Your task to perform on an android device: set the stopwatch Image 0: 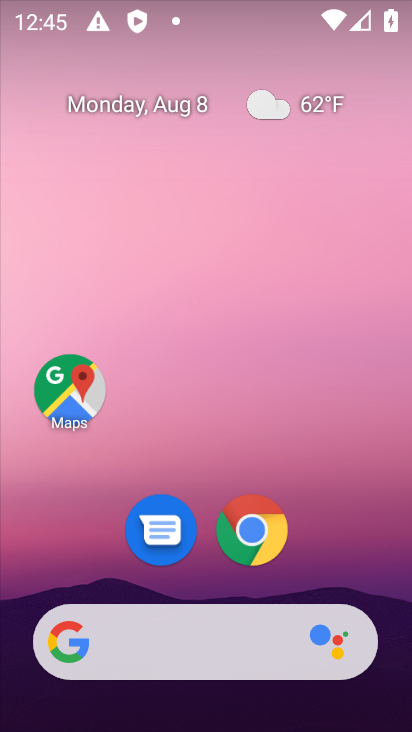
Step 0: drag from (222, 594) to (241, 130)
Your task to perform on an android device: set the stopwatch Image 1: 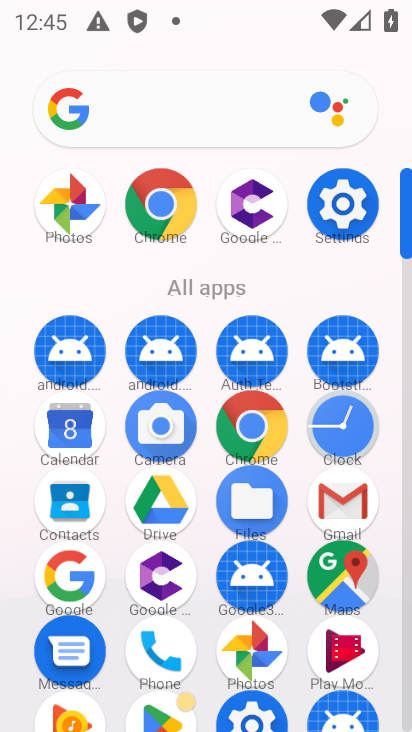
Step 1: click (327, 431)
Your task to perform on an android device: set the stopwatch Image 2: 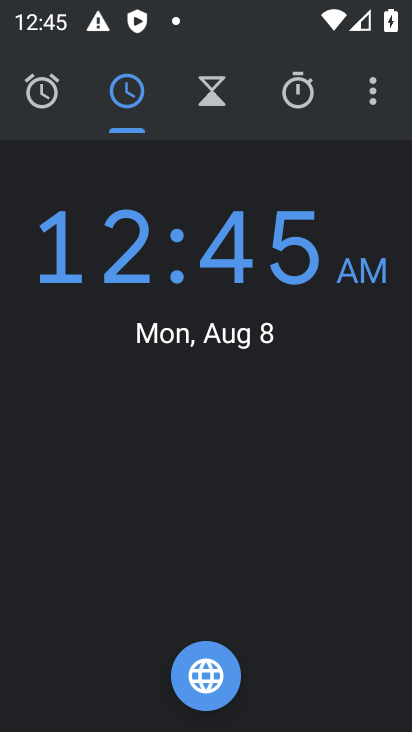
Step 2: click (298, 91)
Your task to perform on an android device: set the stopwatch Image 3: 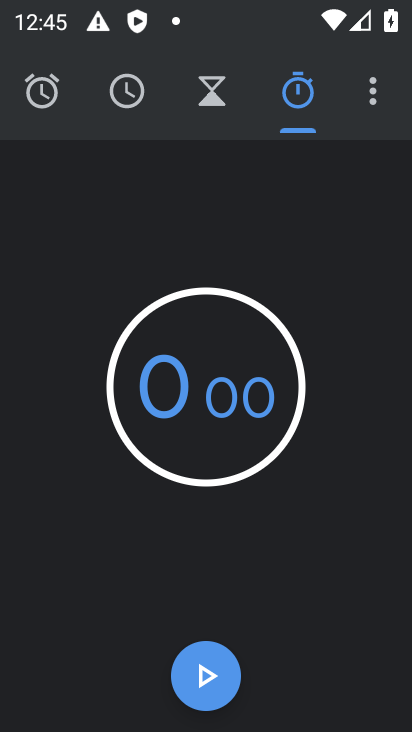
Step 3: task complete